Your task to perform on an android device: Open Google Chrome and open the bookmarks view Image 0: 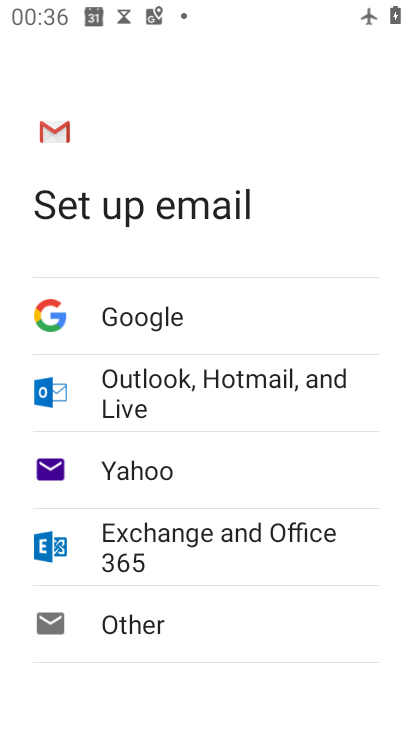
Step 0: press home button
Your task to perform on an android device: Open Google Chrome and open the bookmarks view Image 1: 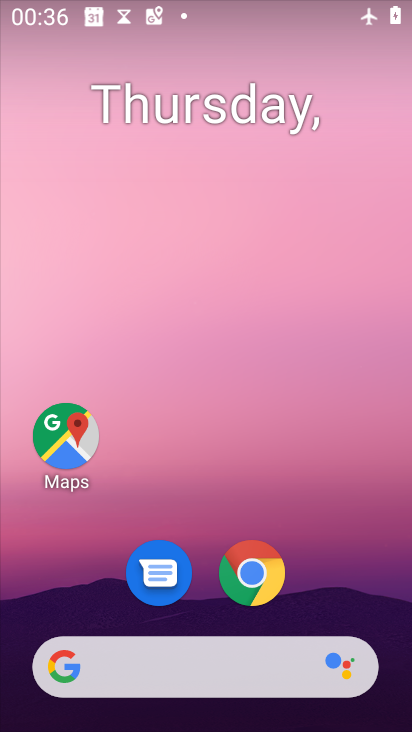
Step 1: click (264, 561)
Your task to perform on an android device: Open Google Chrome and open the bookmarks view Image 2: 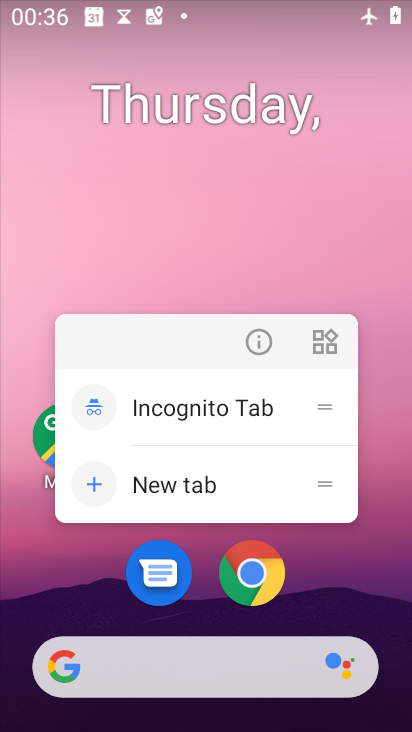
Step 2: click (252, 574)
Your task to perform on an android device: Open Google Chrome and open the bookmarks view Image 3: 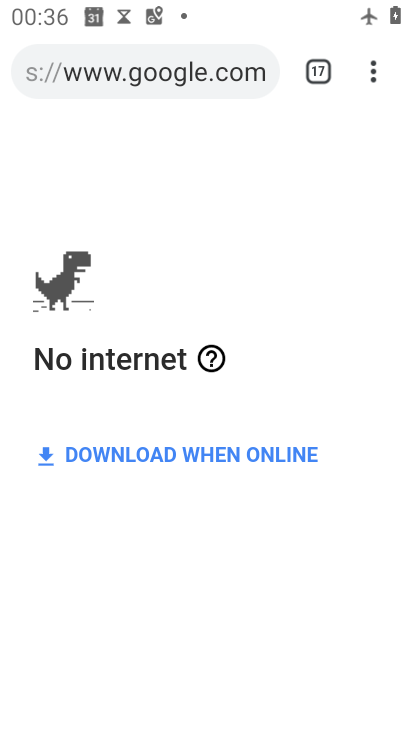
Step 3: click (377, 65)
Your task to perform on an android device: Open Google Chrome and open the bookmarks view Image 4: 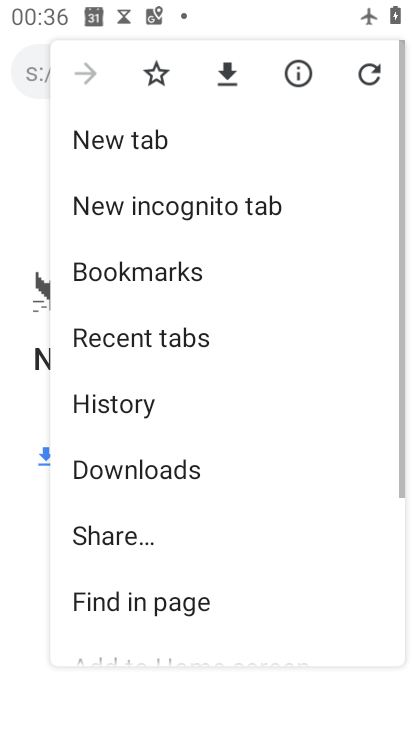
Step 4: click (150, 273)
Your task to perform on an android device: Open Google Chrome and open the bookmarks view Image 5: 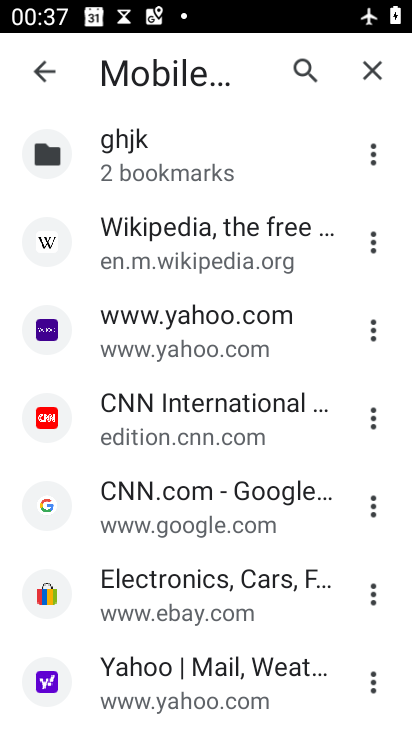
Step 5: task complete